Your task to perform on an android device: What's on my calendar tomorrow? Image 0: 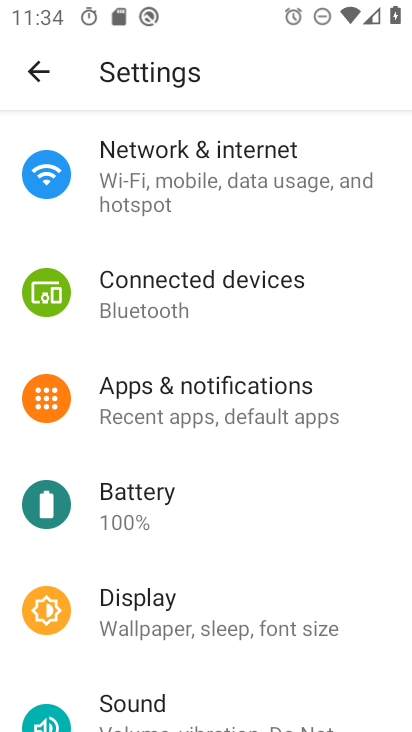
Step 0: press home button
Your task to perform on an android device: What's on my calendar tomorrow? Image 1: 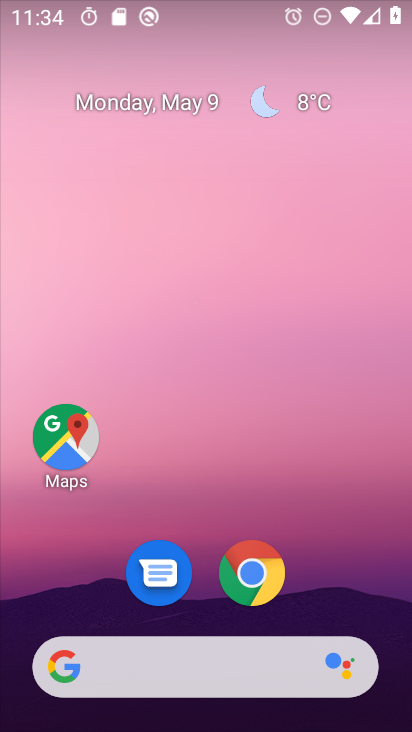
Step 1: drag from (341, 604) to (281, 68)
Your task to perform on an android device: What's on my calendar tomorrow? Image 2: 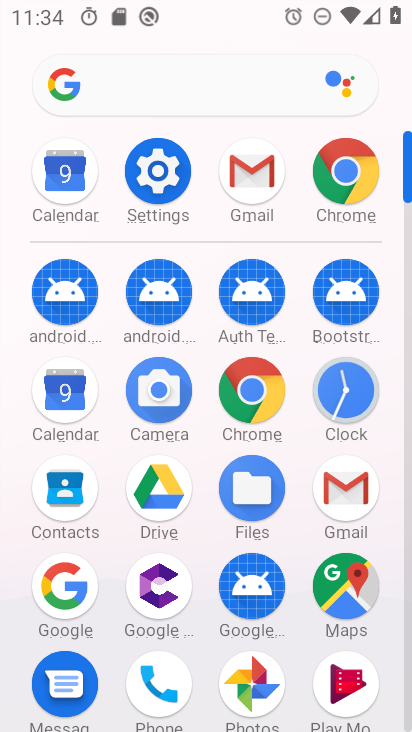
Step 2: click (63, 397)
Your task to perform on an android device: What's on my calendar tomorrow? Image 3: 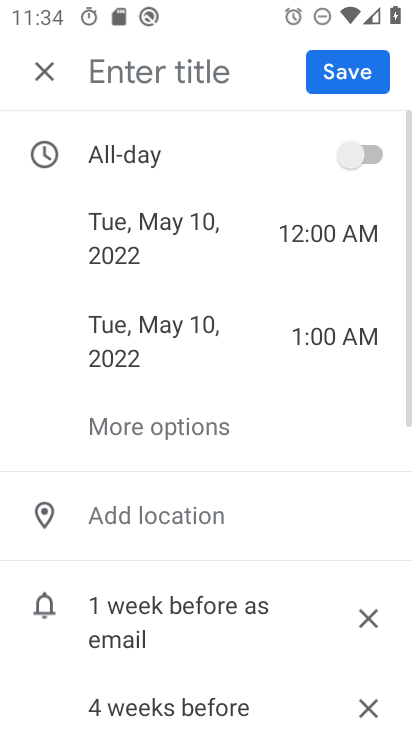
Step 3: click (38, 65)
Your task to perform on an android device: What's on my calendar tomorrow? Image 4: 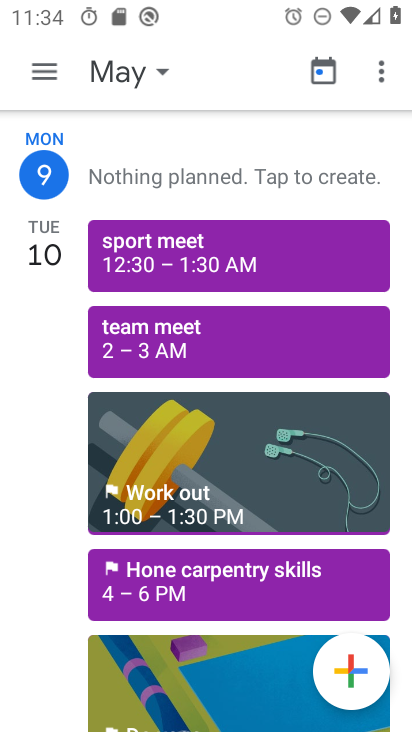
Step 4: task complete